Your task to perform on an android device: turn vacation reply on in the gmail app Image 0: 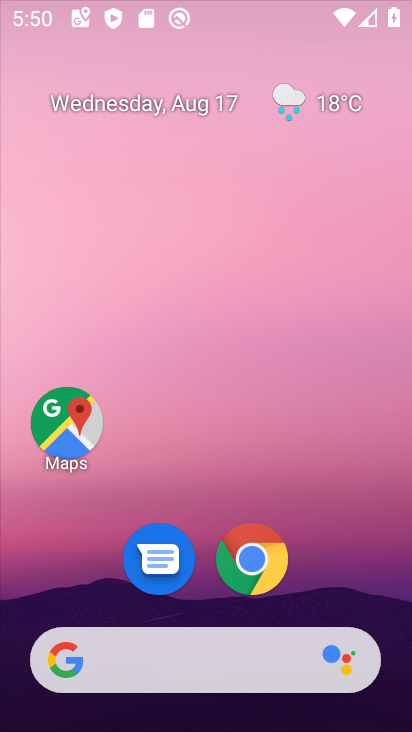
Step 0: drag from (254, 625) to (207, 625)
Your task to perform on an android device: turn vacation reply on in the gmail app Image 1: 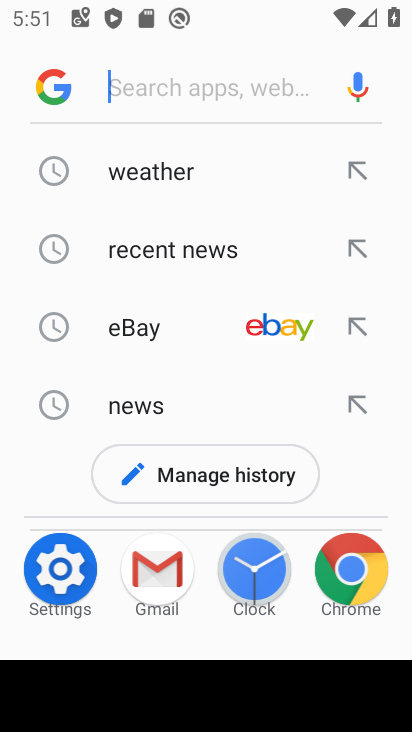
Step 1: press back button
Your task to perform on an android device: turn vacation reply on in the gmail app Image 2: 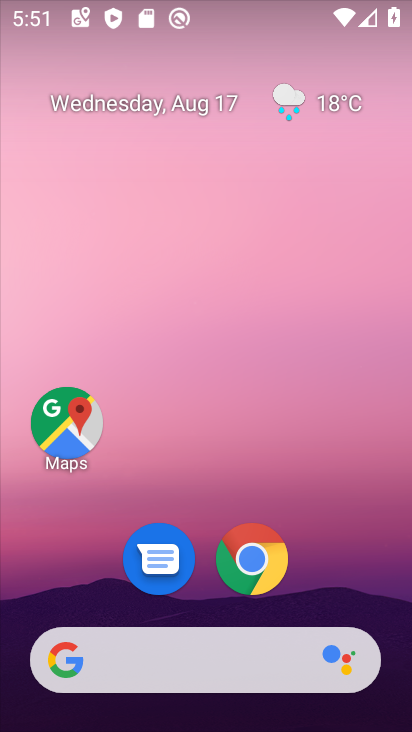
Step 2: drag from (202, 677) to (226, 30)
Your task to perform on an android device: turn vacation reply on in the gmail app Image 3: 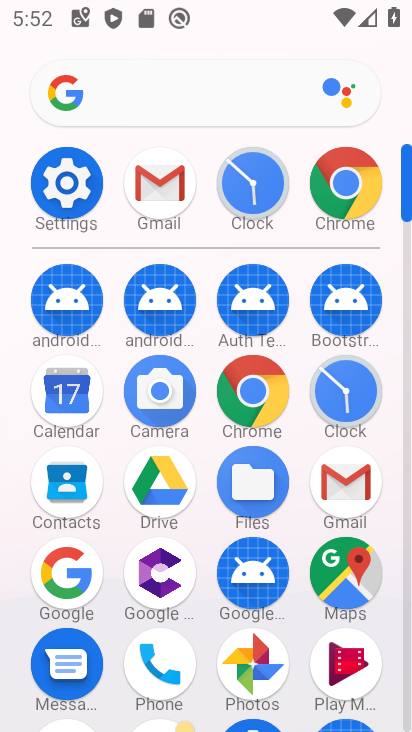
Step 3: click (156, 201)
Your task to perform on an android device: turn vacation reply on in the gmail app Image 4: 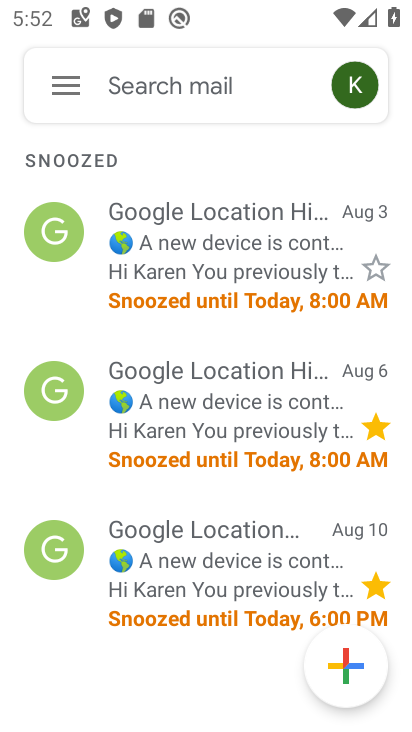
Step 4: click (66, 99)
Your task to perform on an android device: turn vacation reply on in the gmail app Image 5: 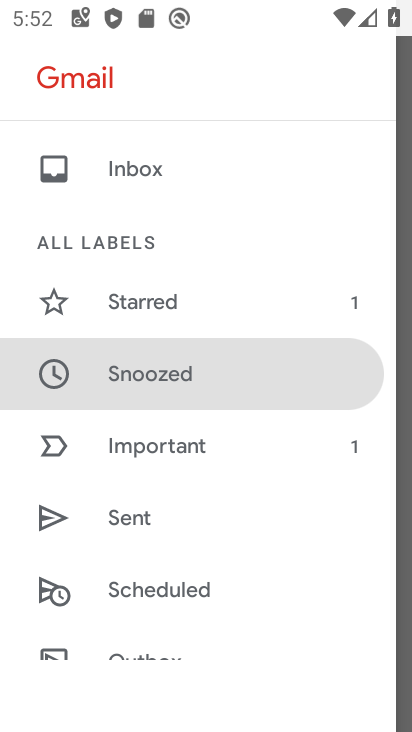
Step 5: drag from (190, 606) to (193, 101)
Your task to perform on an android device: turn vacation reply on in the gmail app Image 6: 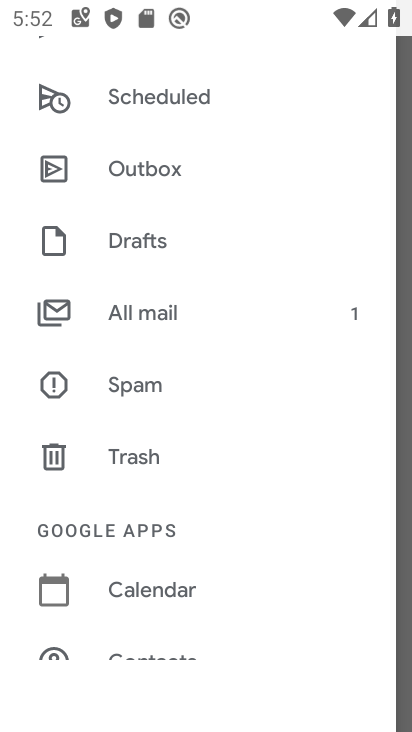
Step 6: drag from (325, 604) to (276, 84)
Your task to perform on an android device: turn vacation reply on in the gmail app Image 7: 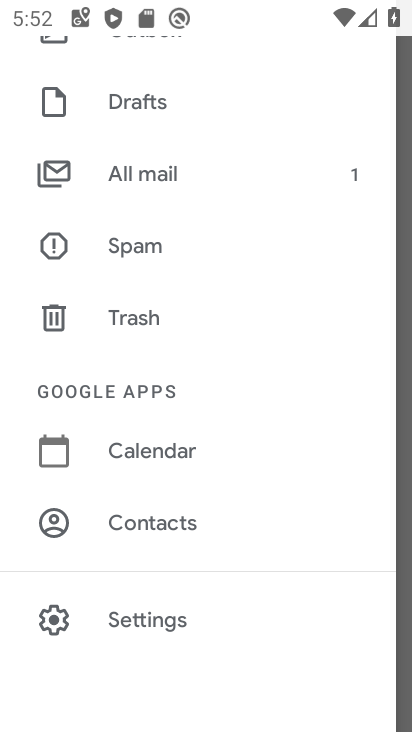
Step 7: click (147, 608)
Your task to perform on an android device: turn vacation reply on in the gmail app Image 8: 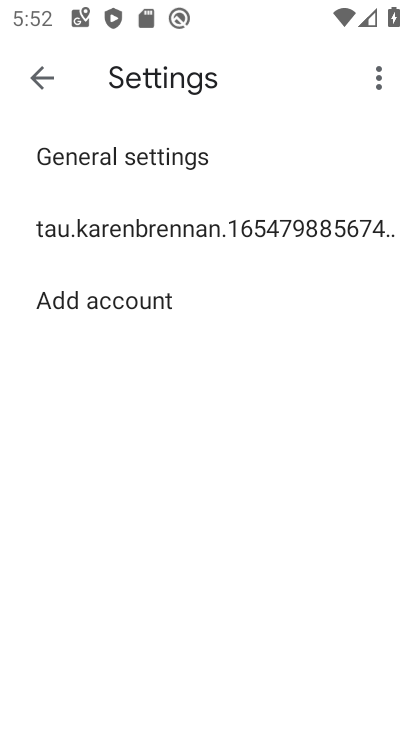
Step 8: click (189, 242)
Your task to perform on an android device: turn vacation reply on in the gmail app Image 9: 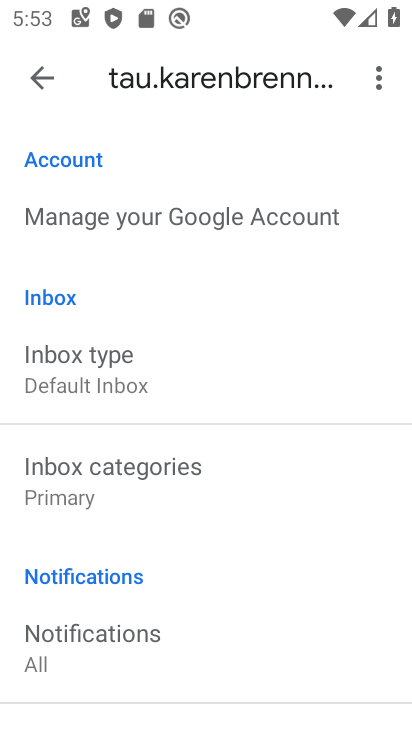
Step 9: drag from (212, 650) to (217, 127)
Your task to perform on an android device: turn vacation reply on in the gmail app Image 10: 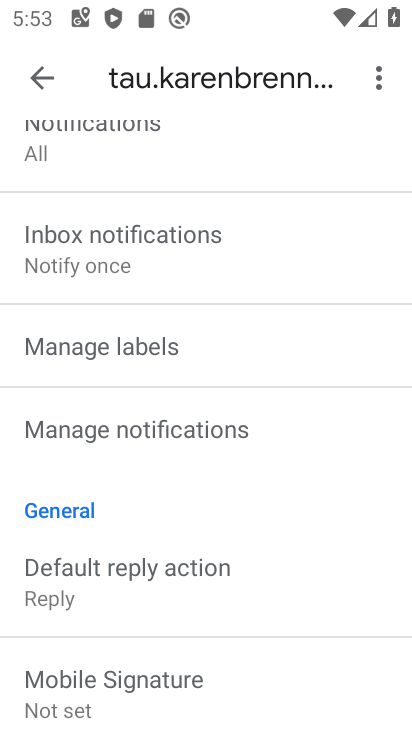
Step 10: drag from (169, 684) to (123, 219)
Your task to perform on an android device: turn vacation reply on in the gmail app Image 11: 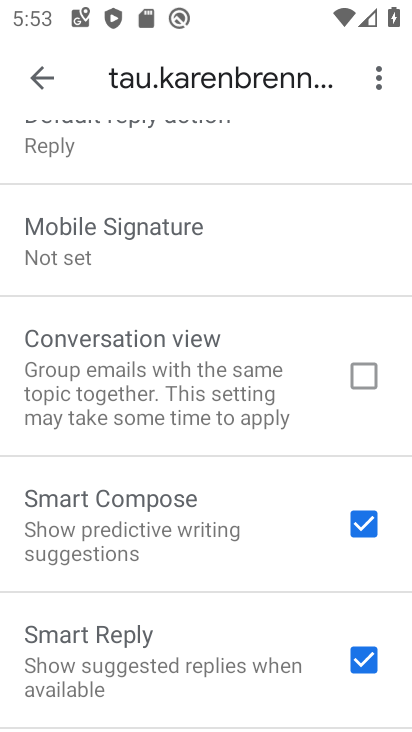
Step 11: drag from (161, 524) to (95, 29)
Your task to perform on an android device: turn vacation reply on in the gmail app Image 12: 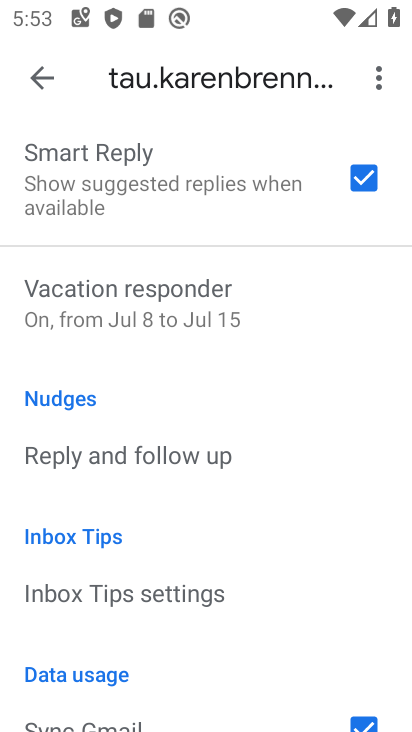
Step 12: click (132, 297)
Your task to perform on an android device: turn vacation reply on in the gmail app Image 13: 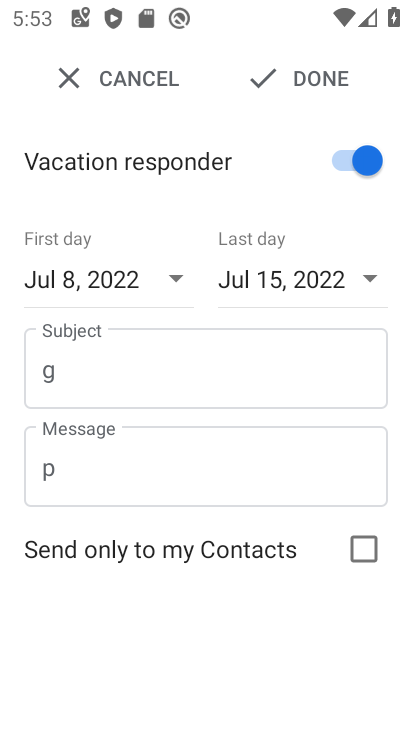
Step 13: task complete